Your task to perform on an android device: turn on improve location accuracy Image 0: 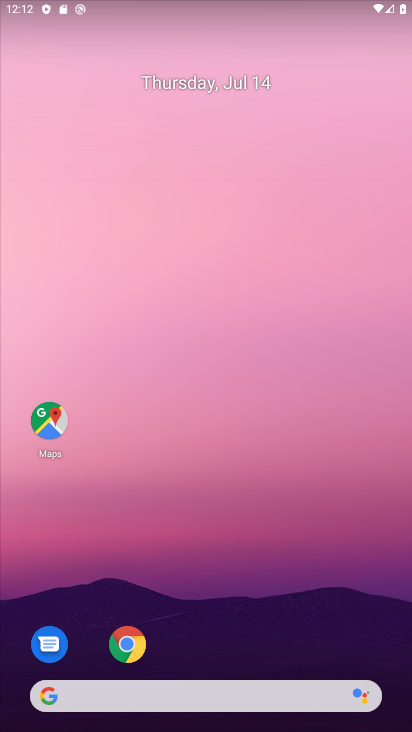
Step 0: drag from (233, 708) to (221, 74)
Your task to perform on an android device: turn on improve location accuracy Image 1: 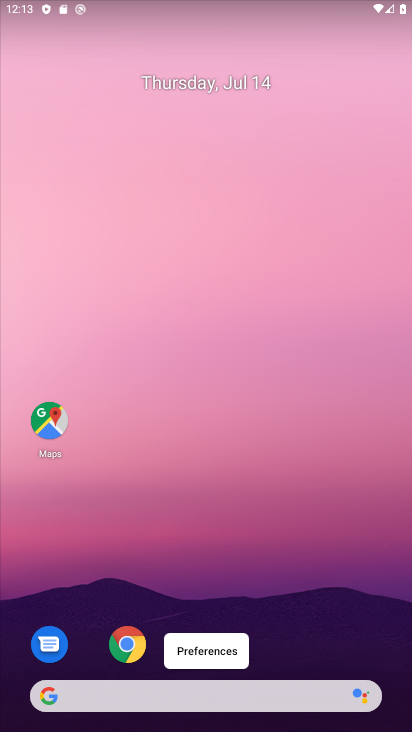
Step 1: drag from (275, 709) to (201, 76)
Your task to perform on an android device: turn on improve location accuracy Image 2: 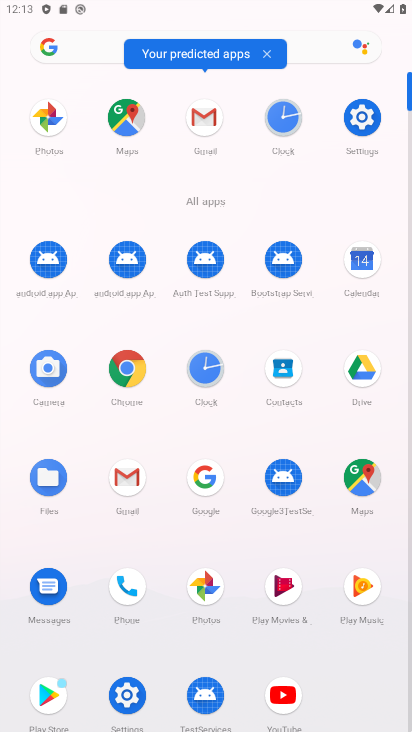
Step 2: click (135, 681)
Your task to perform on an android device: turn on improve location accuracy Image 3: 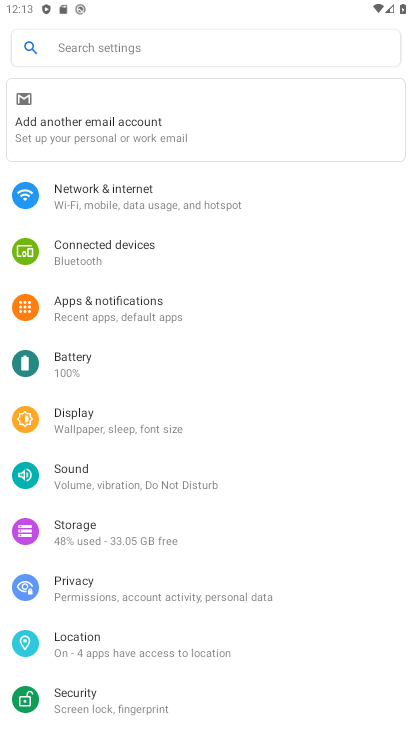
Step 3: click (94, 650)
Your task to perform on an android device: turn on improve location accuracy Image 4: 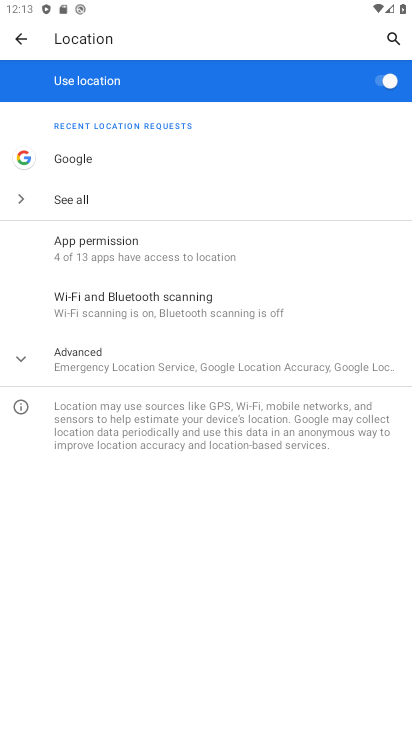
Step 4: click (119, 366)
Your task to perform on an android device: turn on improve location accuracy Image 5: 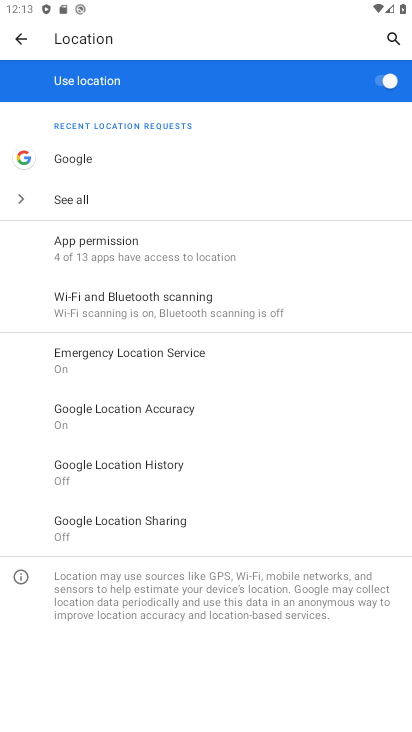
Step 5: click (125, 409)
Your task to perform on an android device: turn on improve location accuracy Image 6: 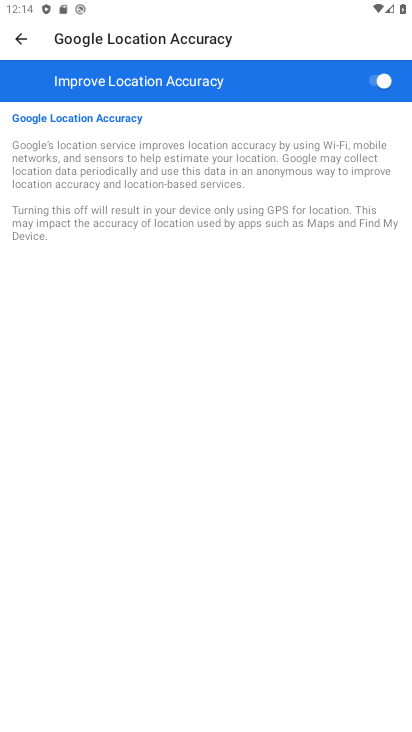
Step 6: task complete